Your task to perform on an android device: What's on my calendar tomorrow? Image 0: 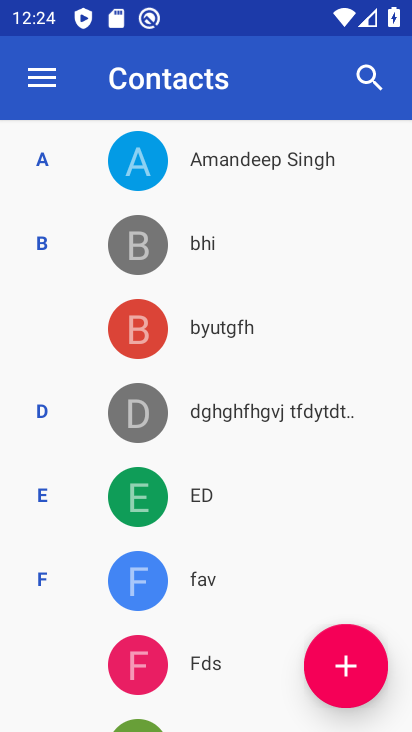
Step 0: press back button
Your task to perform on an android device: What's on my calendar tomorrow? Image 1: 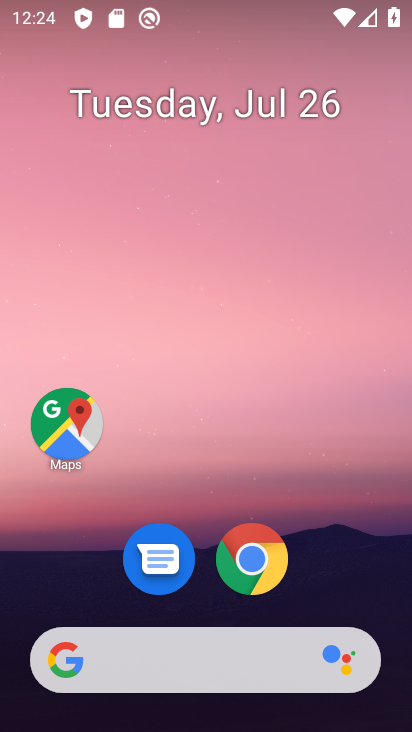
Step 1: drag from (227, 526) to (249, 0)
Your task to perform on an android device: What's on my calendar tomorrow? Image 2: 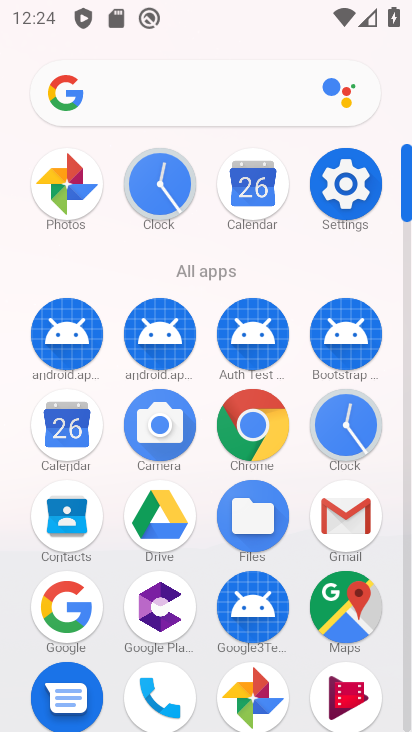
Step 2: click (80, 428)
Your task to perform on an android device: What's on my calendar tomorrow? Image 3: 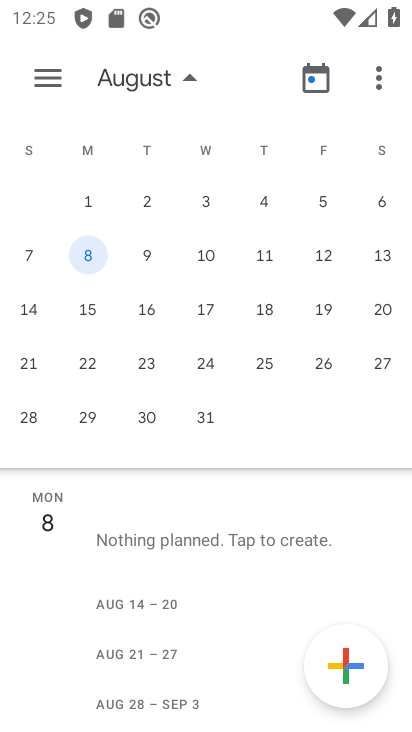
Step 3: click (84, 307)
Your task to perform on an android device: What's on my calendar tomorrow? Image 4: 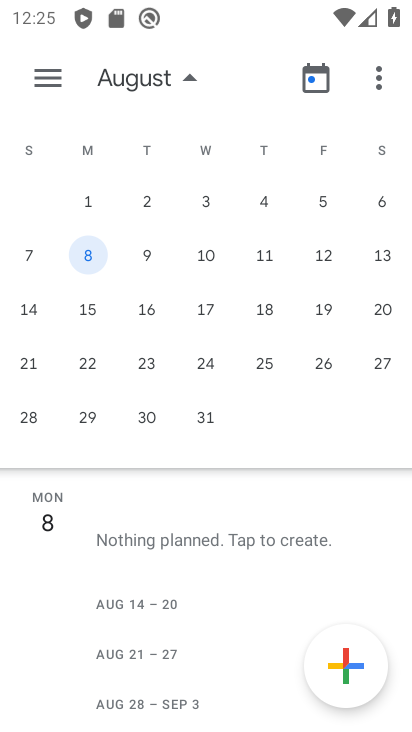
Step 4: drag from (29, 312) to (403, 290)
Your task to perform on an android device: What's on my calendar tomorrow? Image 5: 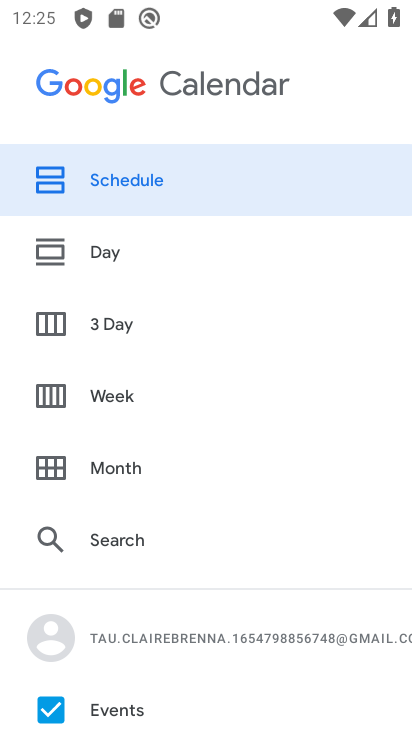
Step 5: drag from (395, 292) to (28, 313)
Your task to perform on an android device: What's on my calendar tomorrow? Image 6: 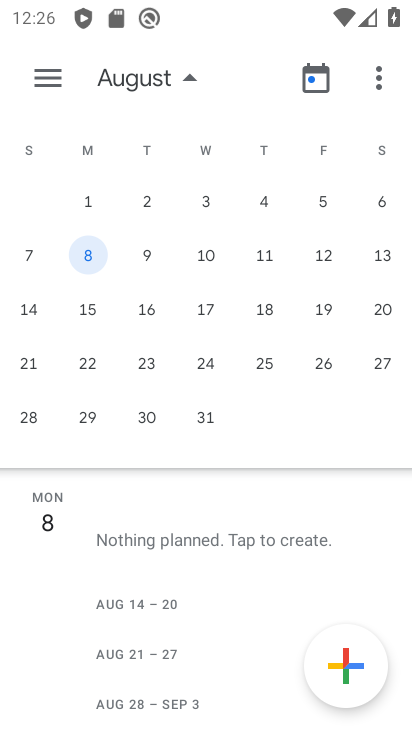
Step 6: drag from (32, 305) to (385, 308)
Your task to perform on an android device: What's on my calendar tomorrow? Image 7: 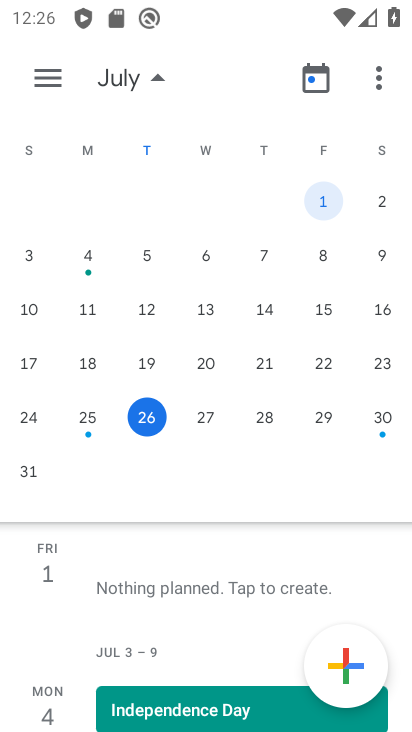
Step 7: click (152, 417)
Your task to perform on an android device: What's on my calendar tomorrow? Image 8: 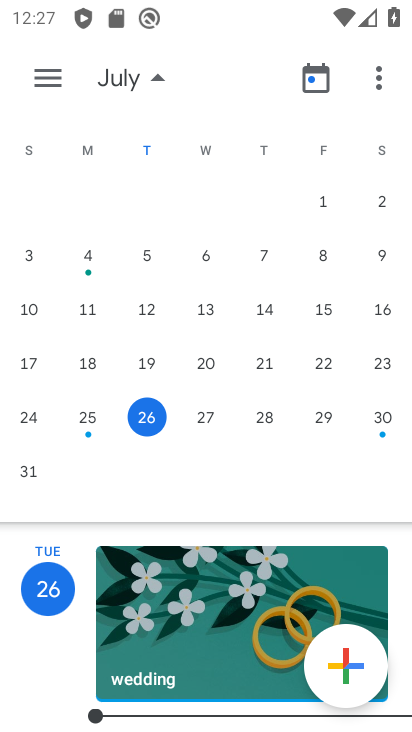
Step 8: task complete